Your task to perform on an android device: Check the news Image 0: 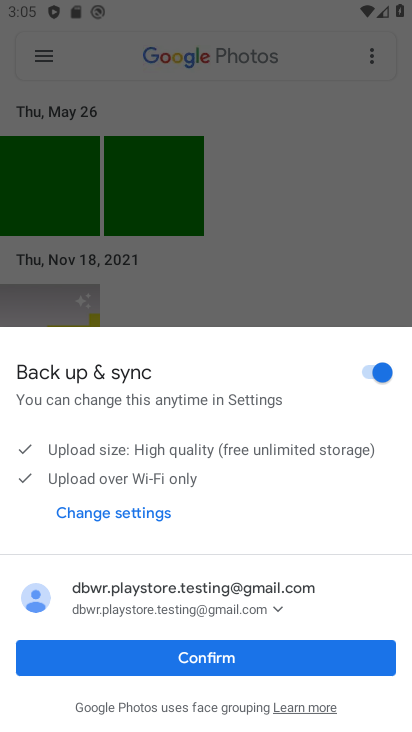
Step 0: press home button
Your task to perform on an android device: Check the news Image 1: 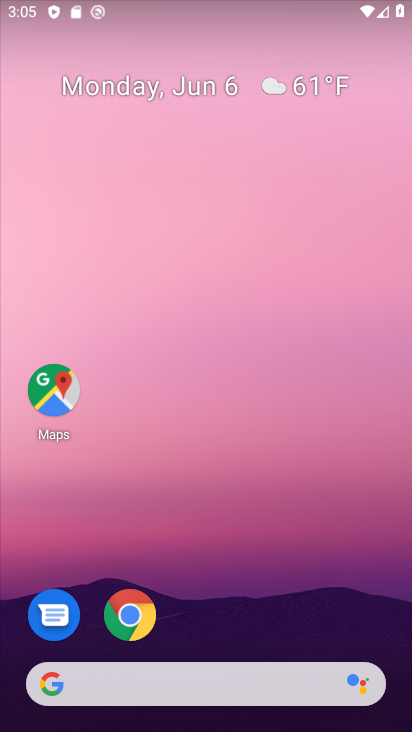
Step 1: click (200, 672)
Your task to perform on an android device: Check the news Image 2: 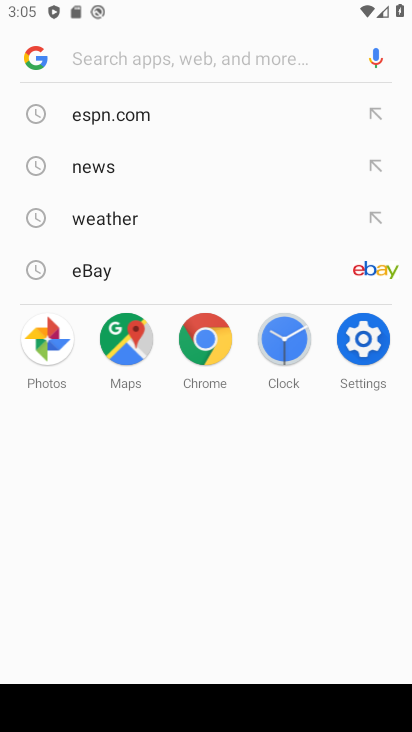
Step 2: click (113, 166)
Your task to perform on an android device: Check the news Image 3: 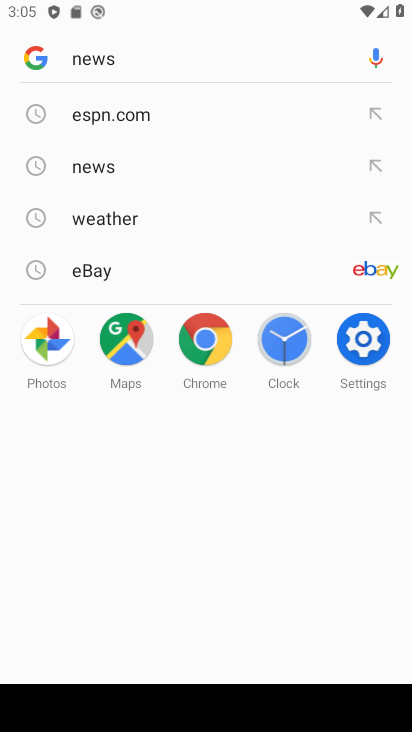
Step 3: task complete